Your task to perform on an android device: Go to settings Image 0: 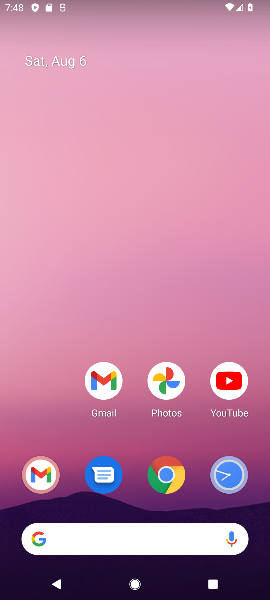
Step 0: drag from (129, 432) to (156, 96)
Your task to perform on an android device: Go to settings Image 1: 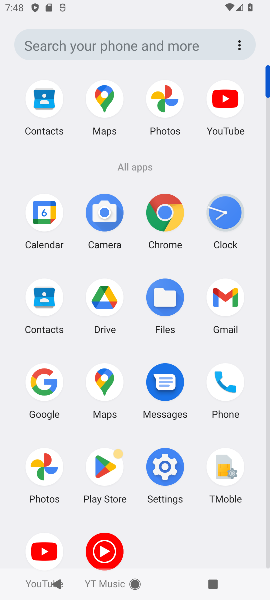
Step 1: click (167, 465)
Your task to perform on an android device: Go to settings Image 2: 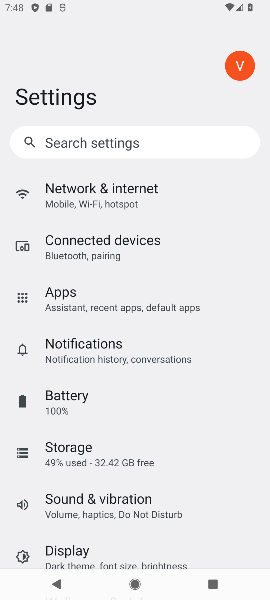
Step 2: task complete